Your task to perform on an android device: turn on the 24-hour format for clock Image 0: 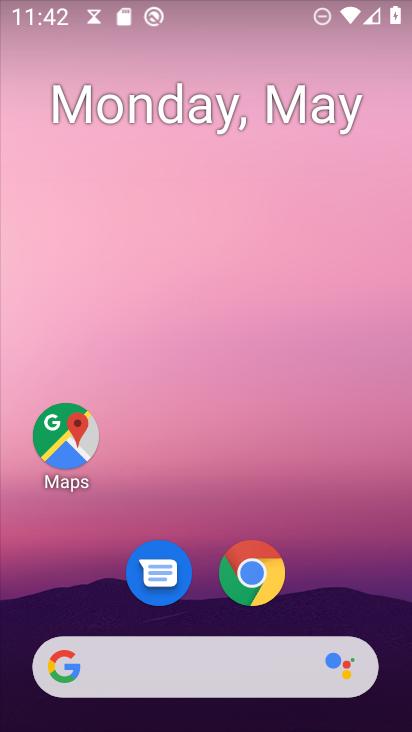
Step 0: drag from (309, 451) to (213, 66)
Your task to perform on an android device: turn on the 24-hour format for clock Image 1: 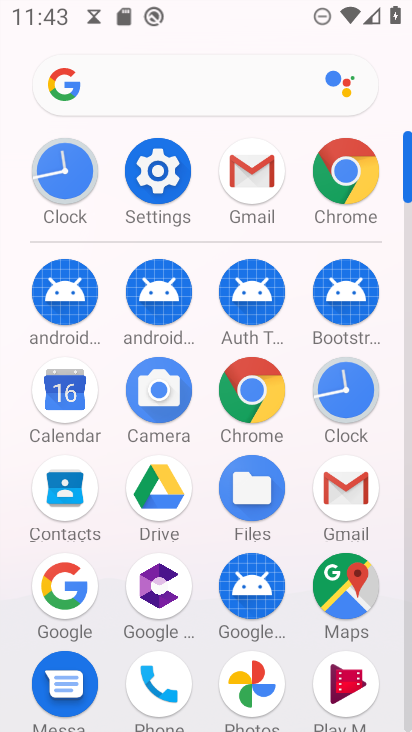
Step 1: click (361, 396)
Your task to perform on an android device: turn on the 24-hour format for clock Image 2: 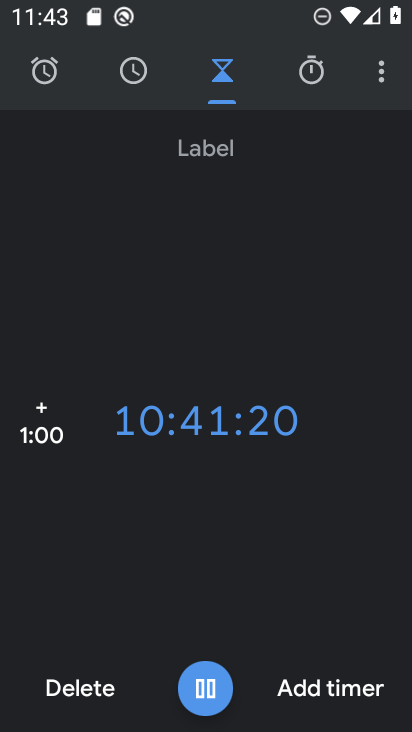
Step 2: click (380, 77)
Your task to perform on an android device: turn on the 24-hour format for clock Image 3: 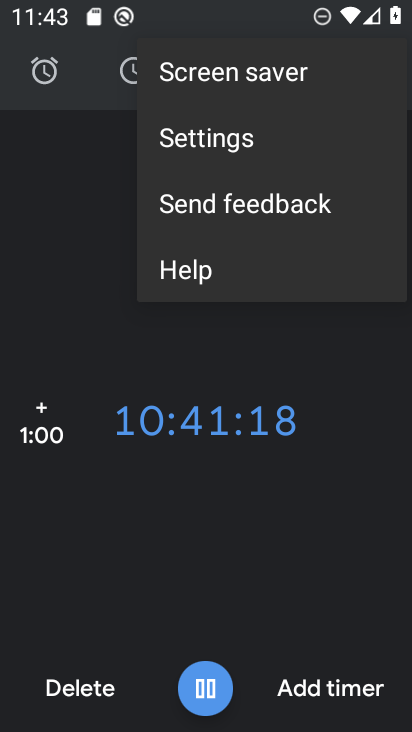
Step 3: click (212, 143)
Your task to perform on an android device: turn on the 24-hour format for clock Image 4: 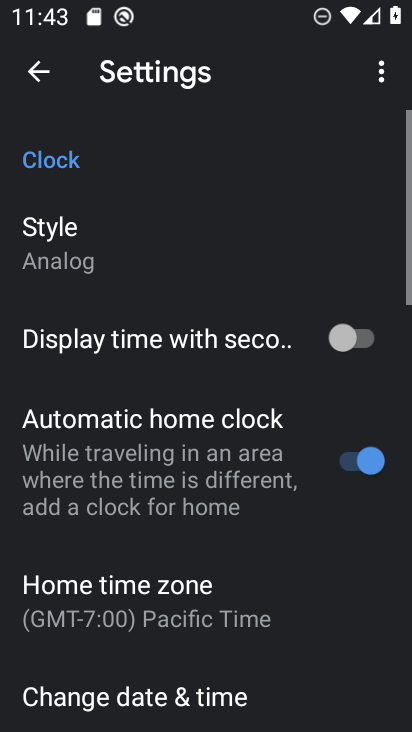
Step 4: click (172, 238)
Your task to perform on an android device: turn on the 24-hour format for clock Image 5: 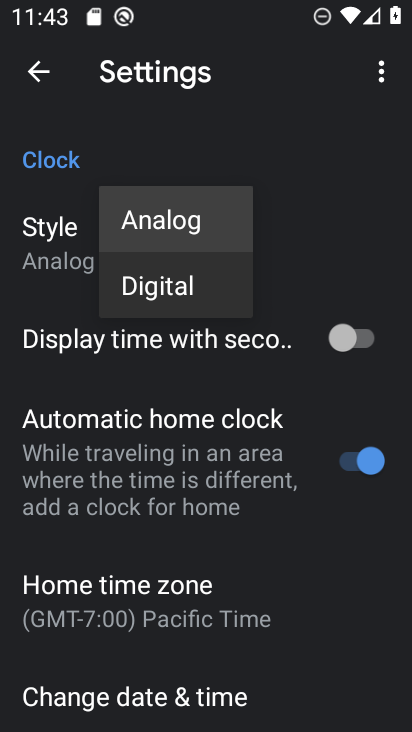
Step 5: click (35, 76)
Your task to perform on an android device: turn on the 24-hour format for clock Image 6: 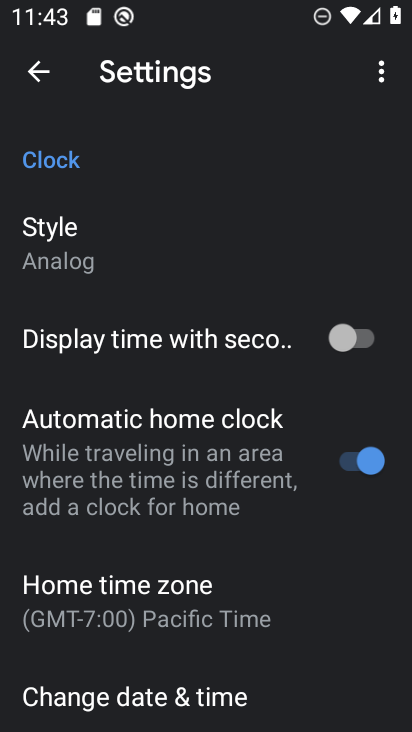
Step 6: drag from (185, 550) to (181, 130)
Your task to perform on an android device: turn on the 24-hour format for clock Image 7: 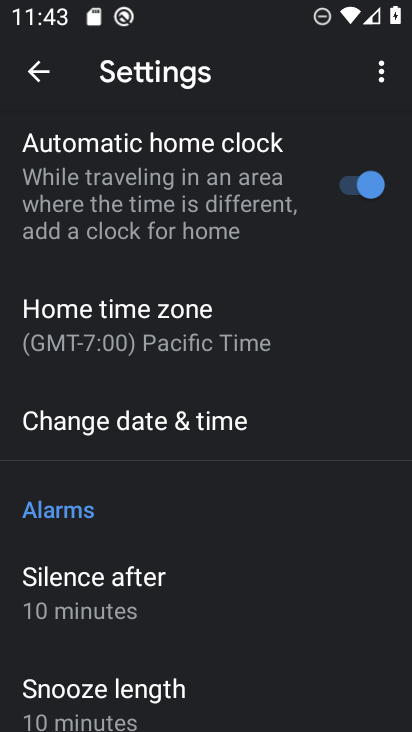
Step 7: click (186, 402)
Your task to perform on an android device: turn on the 24-hour format for clock Image 8: 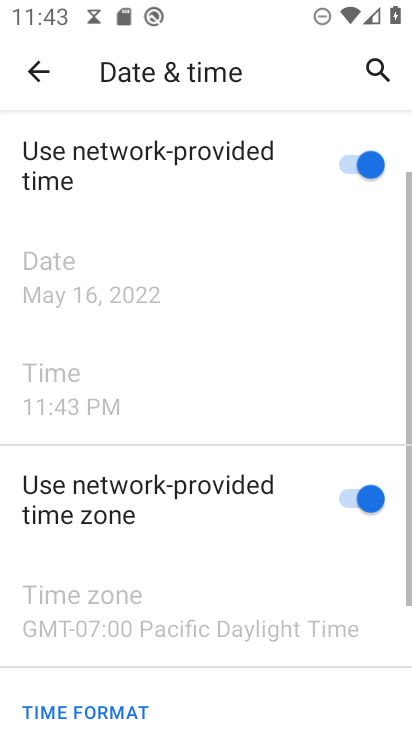
Step 8: drag from (215, 624) to (218, 158)
Your task to perform on an android device: turn on the 24-hour format for clock Image 9: 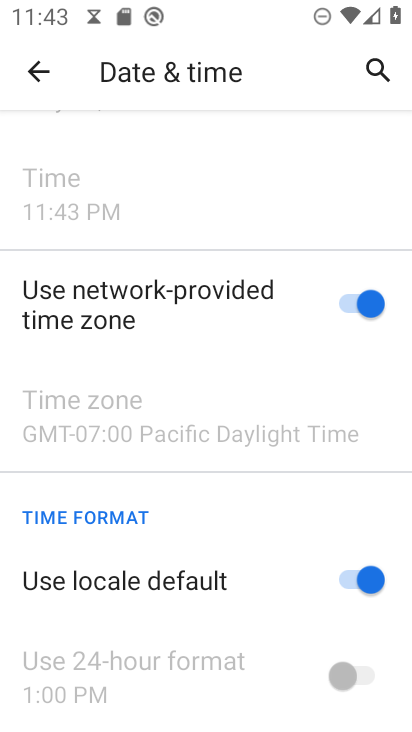
Step 9: click (363, 576)
Your task to perform on an android device: turn on the 24-hour format for clock Image 10: 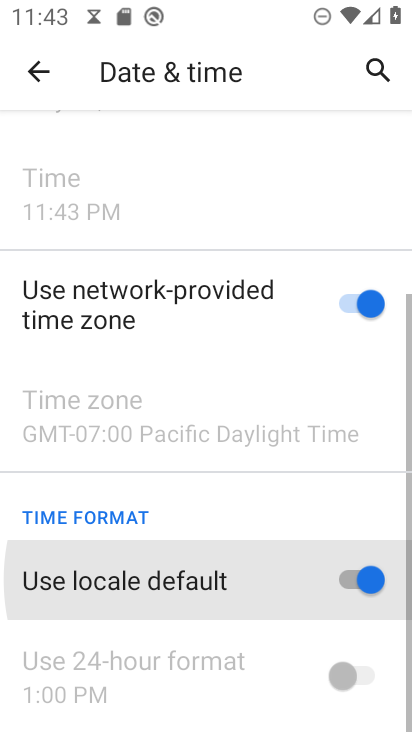
Step 10: click (343, 673)
Your task to perform on an android device: turn on the 24-hour format for clock Image 11: 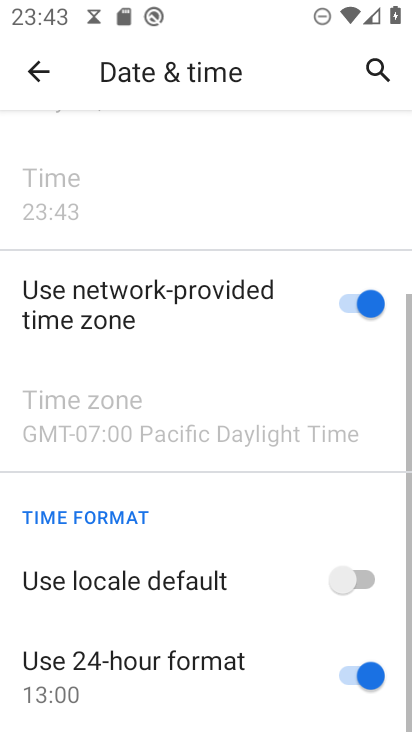
Step 11: task complete